Your task to perform on an android device: remove spam from my inbox in the gmail app Image 0: 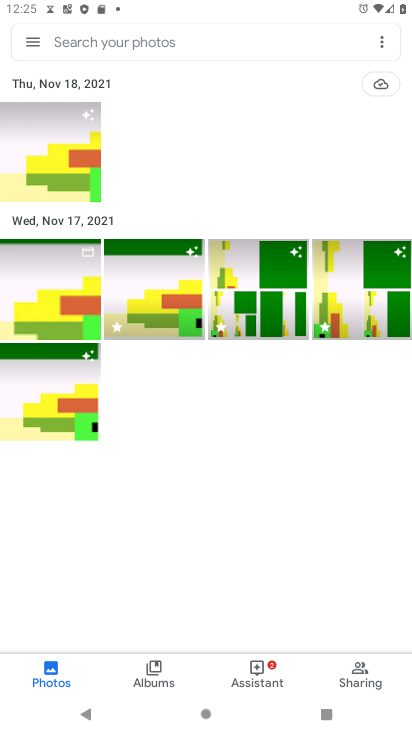
Step 0: press home button
Your task to perform on an android device: remove spam from my inbox in the gmail app Image 1: 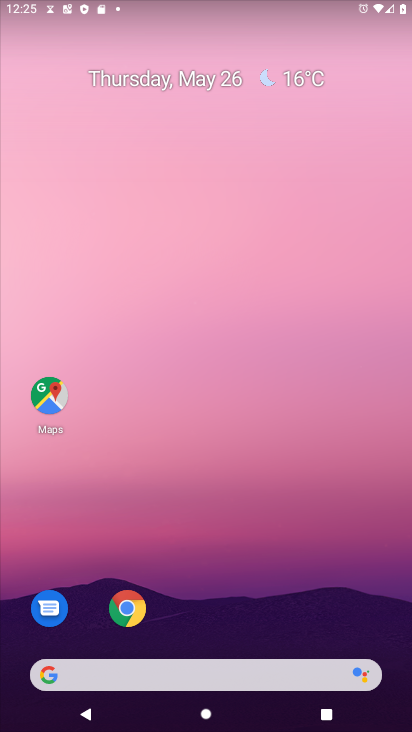
Step 1: drag from (230, 698) to (231, 59)
Your task to perform on an android device: remove spam from my inbox in the gmail app Image 2: 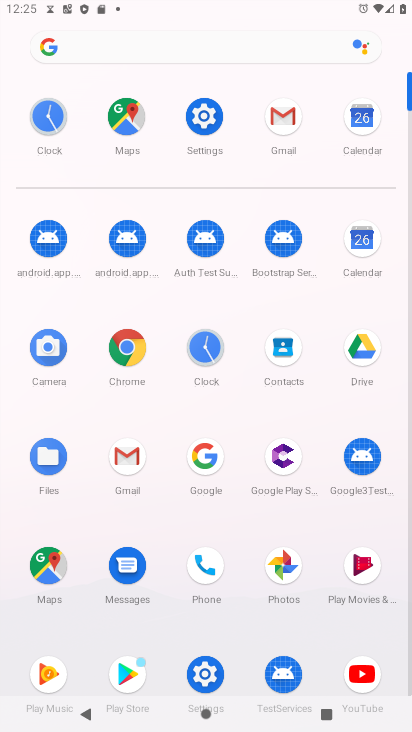
Step 2: click (129, 455)
Your task to perform on an android device: remove spam from my inbox in the gmail app Image 3: 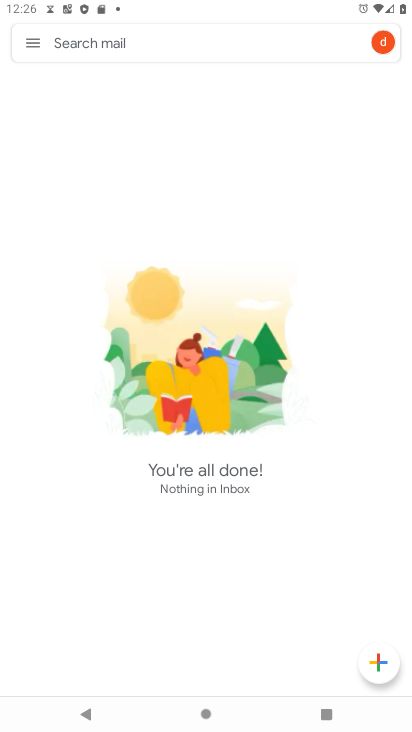
Step 3: task complete